Your task to perform on an android device: Open display settings Image 0: 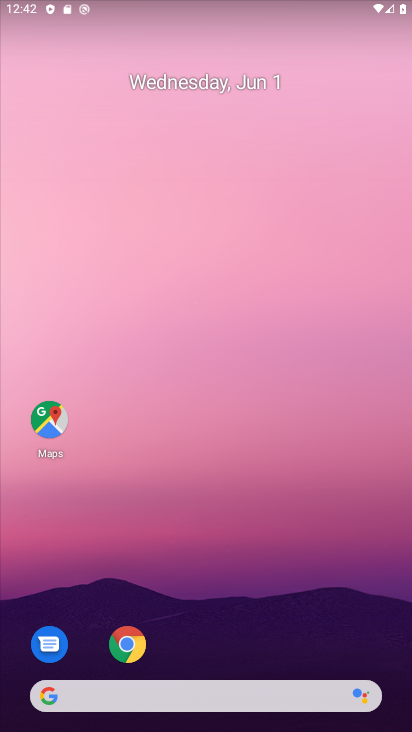
Step 0: press home button
Your task to perform on an android device: Open display settings Image 1: 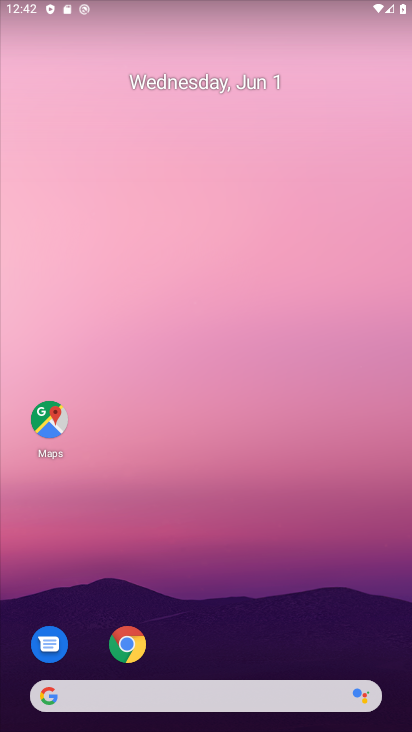
Step 1: drag from (301, 633) to (269, 0)
Your task to perform on an android device: Open display settings Image 2: 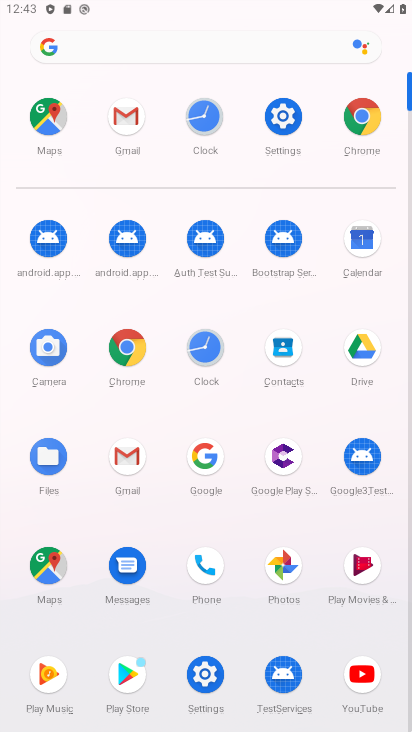
Step 2: click (210, 665)
Your task to perform on an android device: Open display settings Image 3: 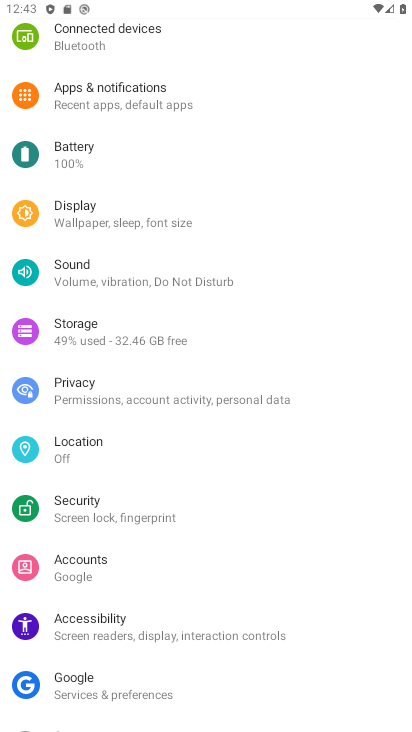
Step 3: click (72, 224)
Your task to perform on an android device: Open display settings Image 4: 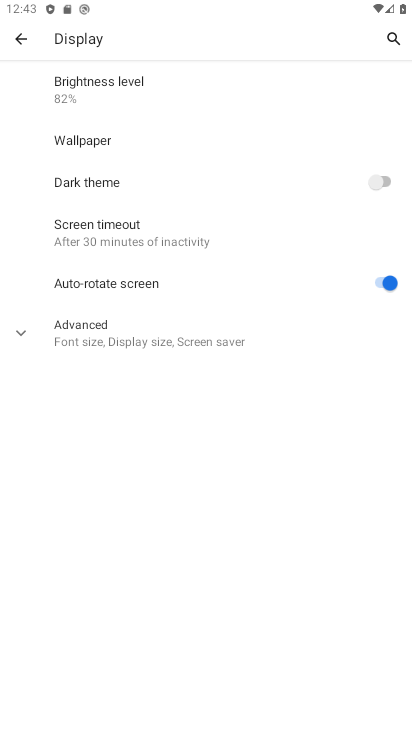
Step 4: task complete